Your task to perform on an android device: Open a new Chrome private tab Image 0: 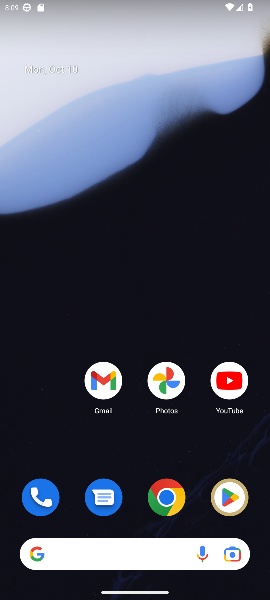
Step 0: drag from (159, 491) to (160, 224)
Your task to perform on an android device: Open a new Chrome private tab Image 1: 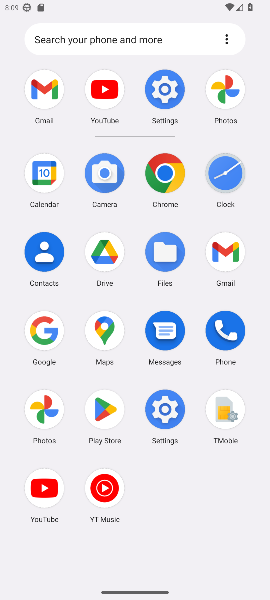
Step 1: click (46, 332)
Your task to perform on an android device: Open a new Chrome private tab Image 2: 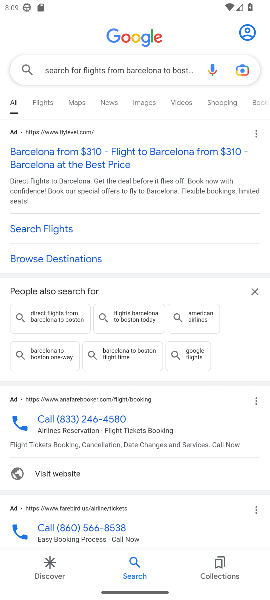
Step 2: click (136, 61)
Your task to perform on an android device: Open a new Chrome private tab Image 3: 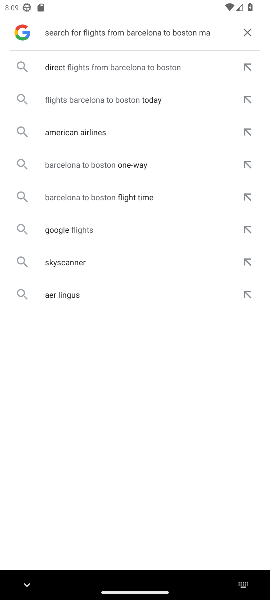
Step 3: click (246, 29)
Your task to perform on an android device: Open a new Chrome private tab Image 4: 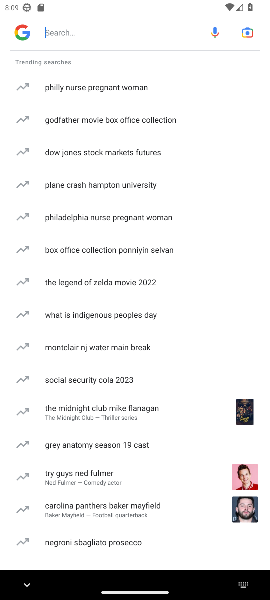
Step 4: click (124, 27)
Your task to perform on an android device: Open a new Chrome private tab Image 5: 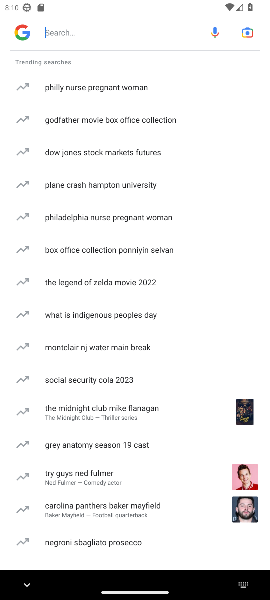
Step 5: type "Open a new Chrome private tab "
Your task to perform on an android device: Open a new Chrome private tab Image 6: 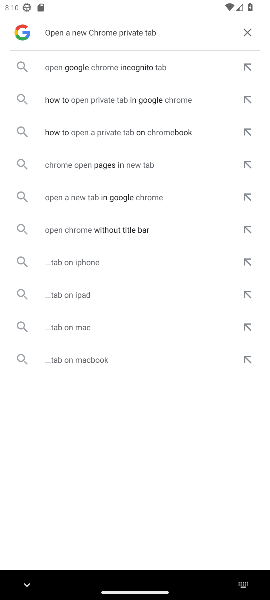
Step 6: click (69, 69)
Your task to perform on an android device: Open a new Chrome private tab Image 7: 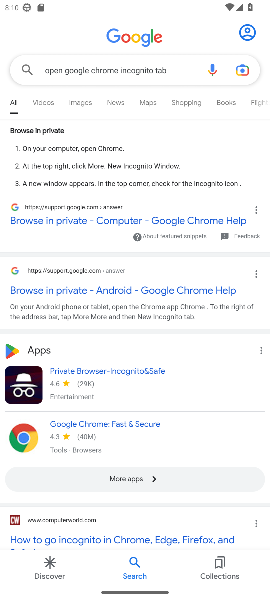
Step 7: drag from (189, 164) to (198, 326)
Your task to perform on an android device: Open a new Chrome private tab Image 8: 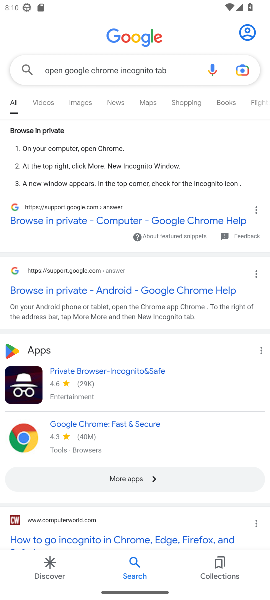
Step 8: press home button
Your task to perform on an android device: Open a new Chrome private tab Image 9: 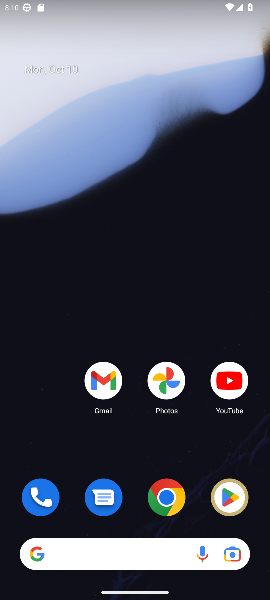
Step 9: click (159, 494)
Your task to perform on an android device: Open a new Chrome private tab Image 10: 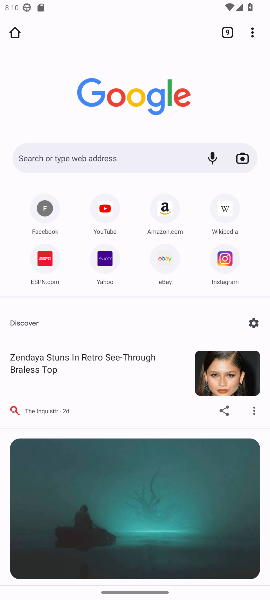
Step 10: click (256, 33)
Your task to perform on an android device: Open a new Chrome private tab Image 11: 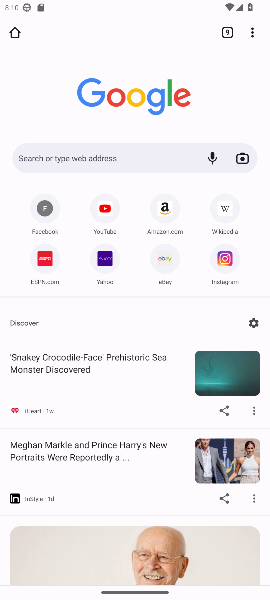
Step 11: click (249, 26)
Your task to perform on an android device: Open a new Chrome private tab Image 12: 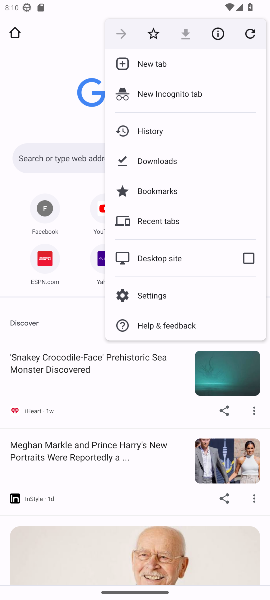
Step 12: click (139, 66)
Your task to perform on an android device: Open a new Chrome private tab Image 13: 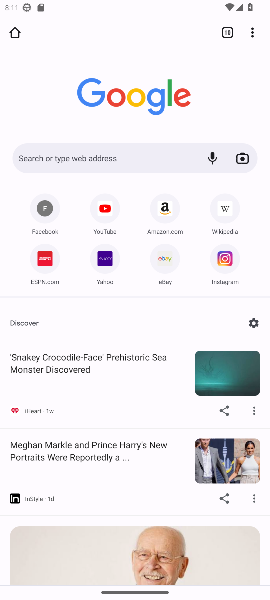
Step 13: task complete